Your task to perform on an android device: turn on location history Image 0: 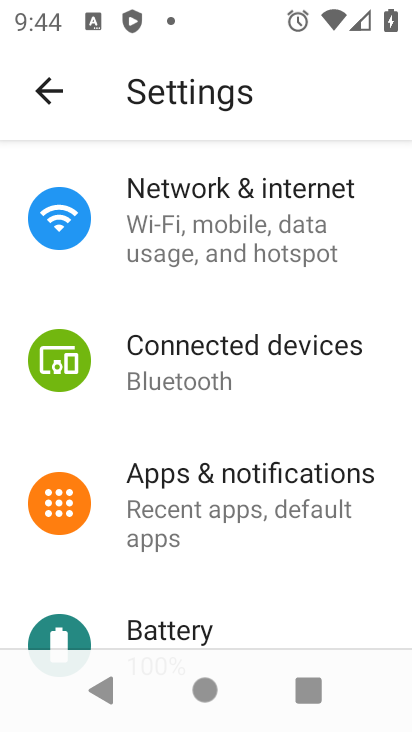
Step 0: drag from (147, 577) to (18, 25)
Your task to perform on an android device: turn on location history Image 1: 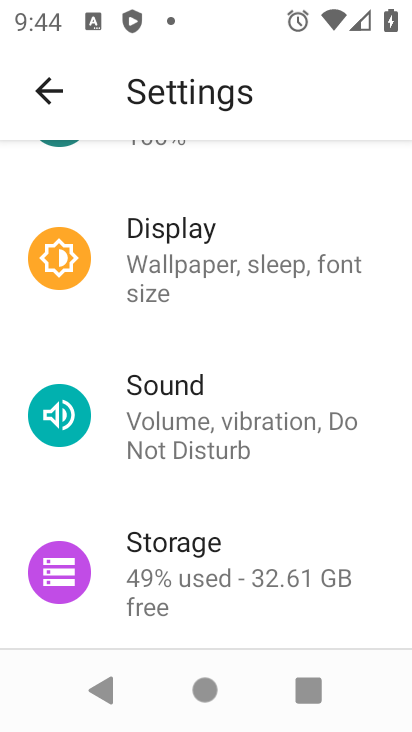
Step 1: drag from (292, 524) to (285, 169)
Your task to perform on an android device: turn on location history Image 2: 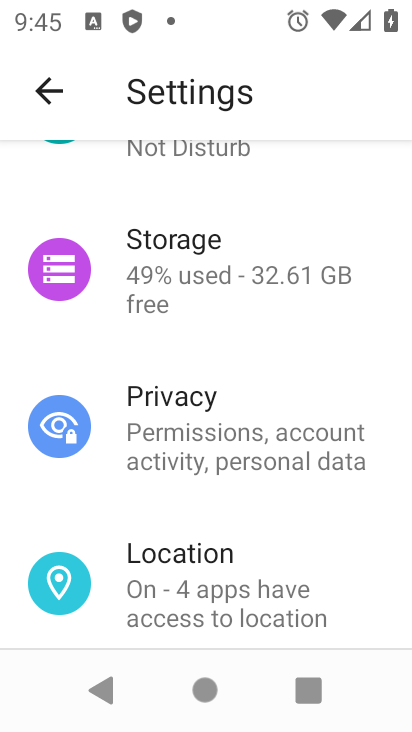
Step 2: click (239, 574)
Your task to perform on an android device: turn on location history Image 3: 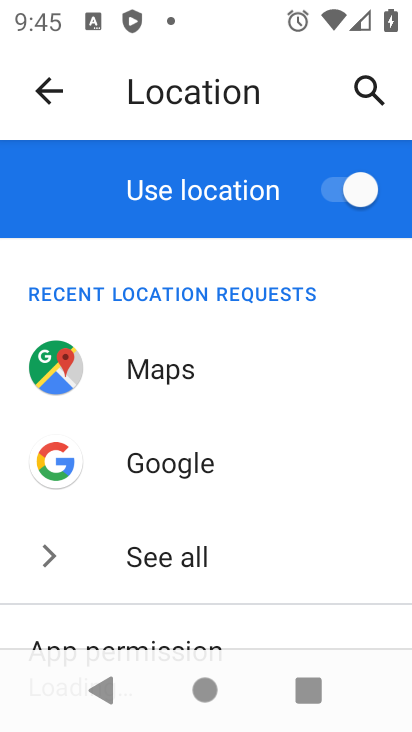
Step 3: drag from (229, 619) to (180, 284)
Your task to perform on an android device: turn on location history Image 4: 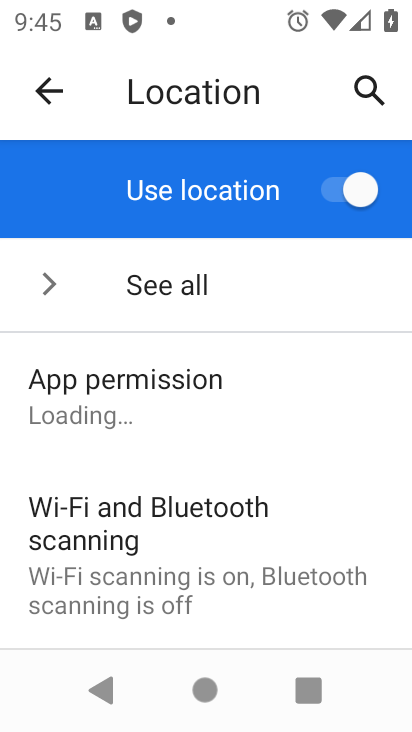
Step 4: drag from (244, 608) to (204, 229)
Your task to perform on an android device: turn on location history Image 5: 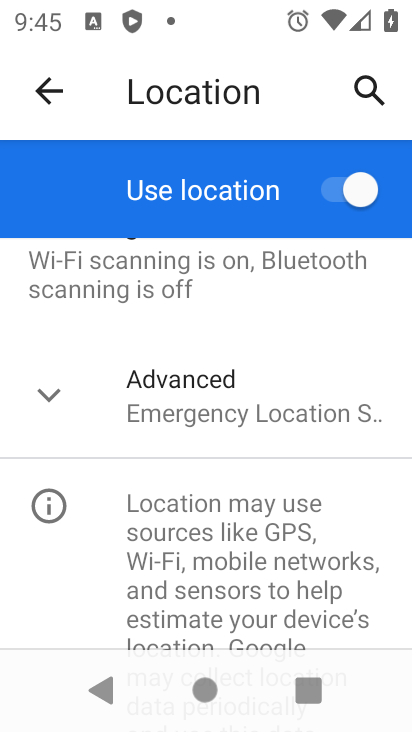
Step 5: drag from (191, 520) to (129, 224)
Your task to perform on an android device: turn on location history Image 6: 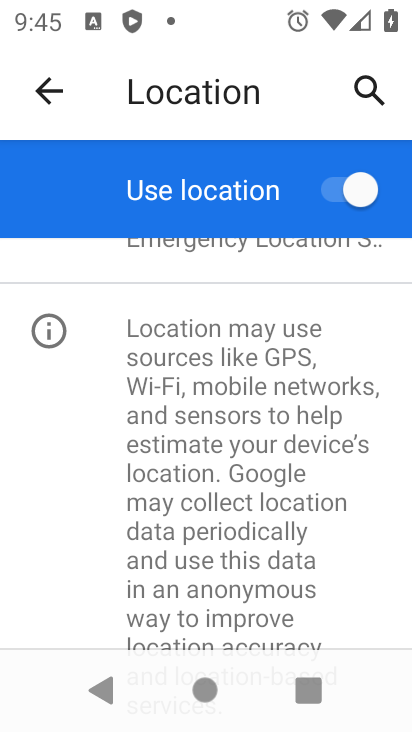
Step 6: drag from (221, 605) to (155, 224)
Your task to perform on an android device: turn on location history Image 7: 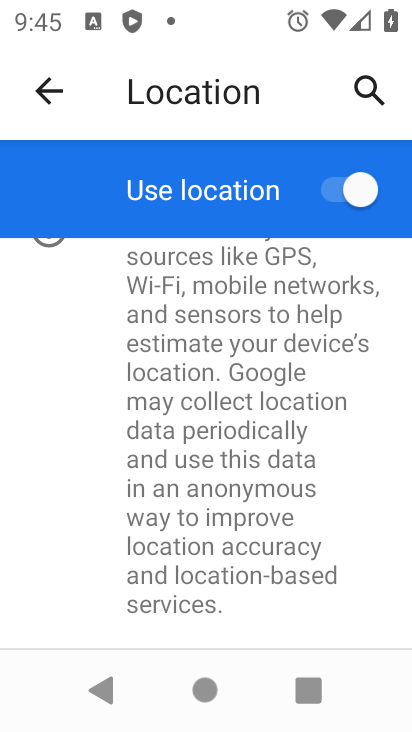
Step 7: drag from (237, 550) to (203, 262)
Your task to perform on an android device: turn on location history Image 8: 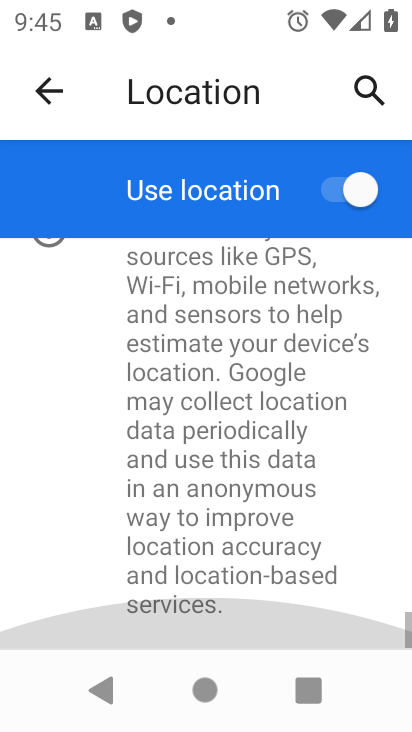
Step 8: drag from (203, 262) to (274, 618)
Your task to perform on an android device: turn on location history Image 9: 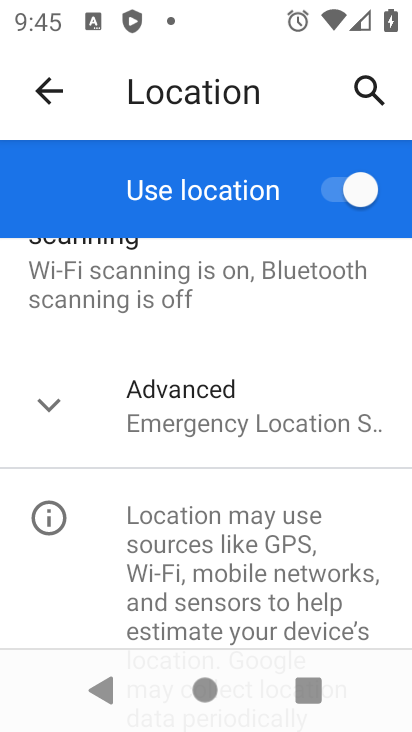
Step 9: click (178, 412)
Your task to perform on an android device: turn on location history Image 10: 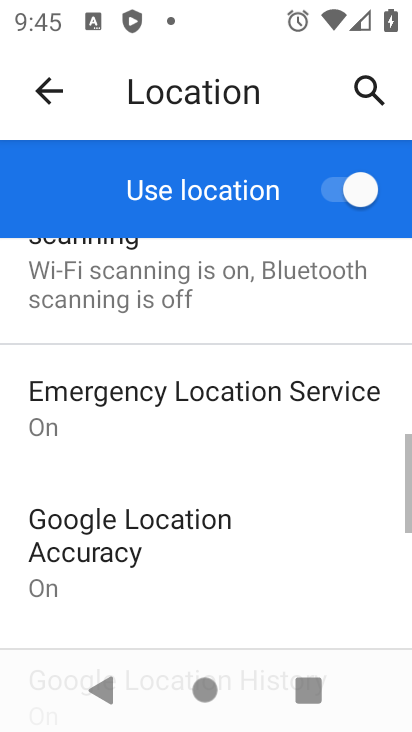
Step 10: drag from (236, 576) to (162, 299)
Your task to perform on an android device: turn on location history Image 11: 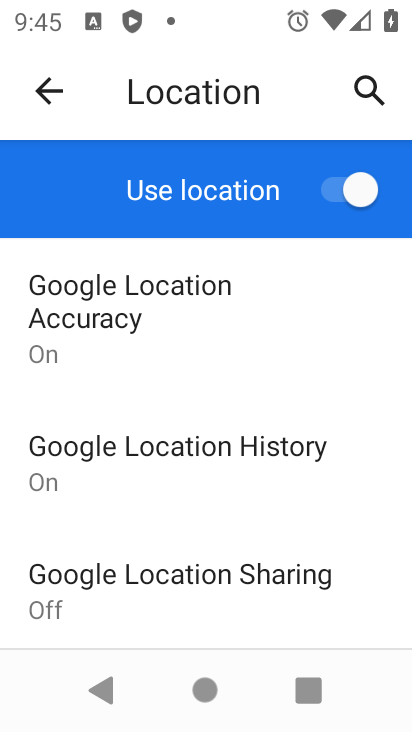
Step 11: click (191, 431)
Your task to perform on an android device: turn on location history Image 12: 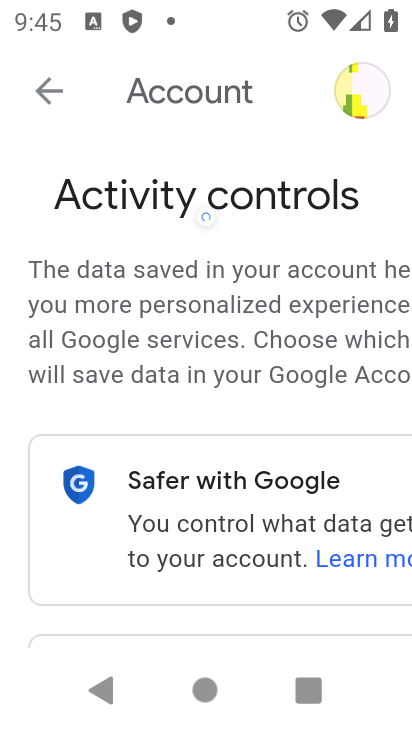
Step 12: drag from (250, 566) to (233, 226)
Your task to perform on an android device: turn on location history Image 13: 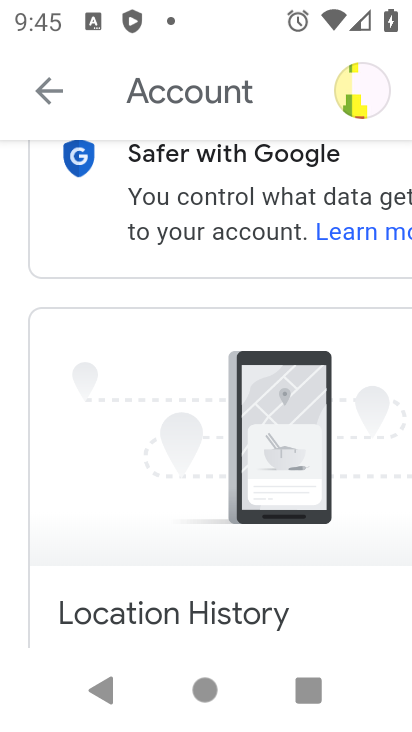
Step 13: drag from (258, 564) to (263, 118)
Your task to perform on an android device: turn on location history Image 14: 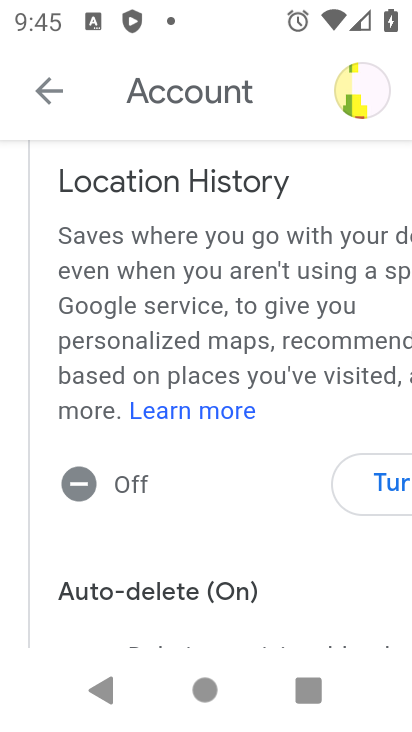
Step 14: drag from (278, 518) to (251, 383)
Your task to perform on an android device: turn on location history Image 15: 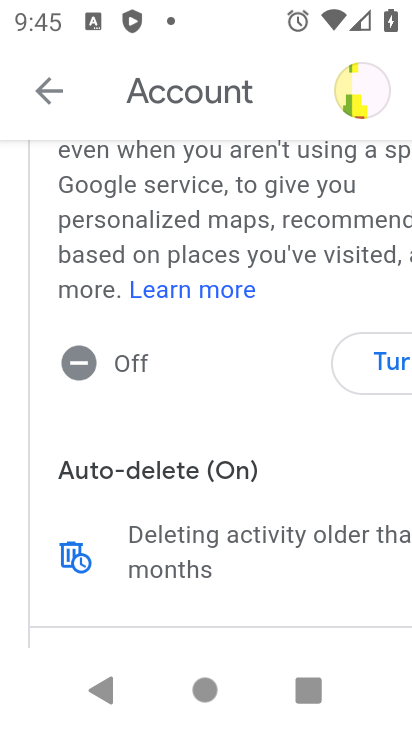
Step 15: drag from (224, 463) to (166, 512)
Your task to perform on an android device: turn on location history Image 16: 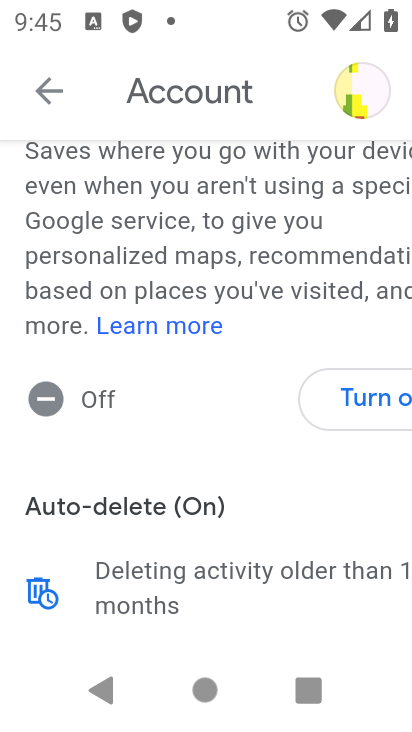
Step 16: click (348, 417)
Your task to perform on an android device: turn on location history Image 17: 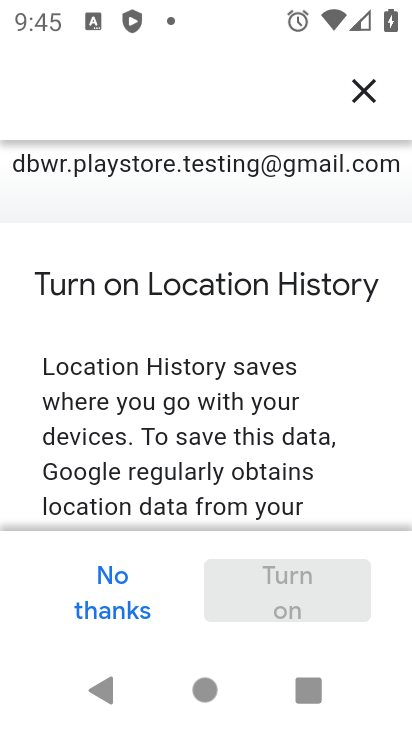
Step 17: drag from (269, 483) to (249, 78)
Your task to perform on an android device: turn on location history Image 18: 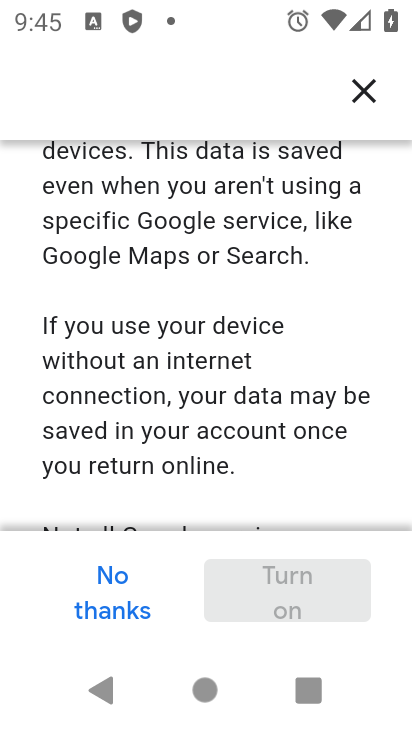
Step 18: drag from (228, 477) to (248, 98)
Your task to perform on an android device: turn on location history Image 19: 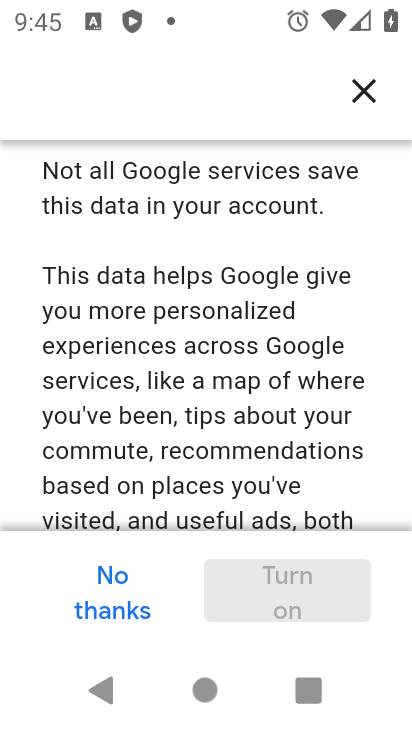
Step 19: drag from (260, 414) to (311, 150)
Your task to perform on an android device: turn on location history Image 20: 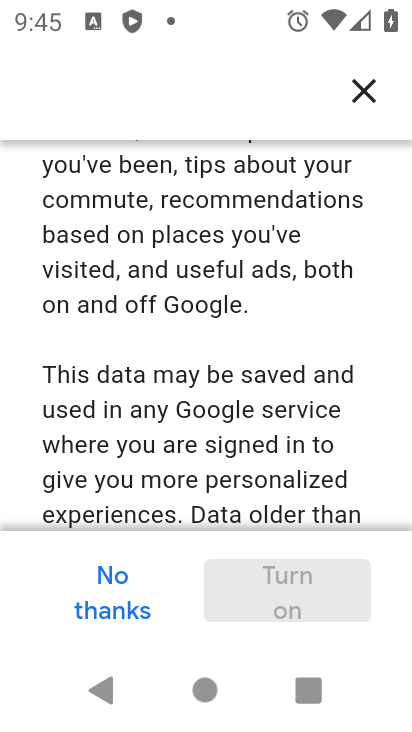
Step 20: drag from (253, 494) to (255, 119)
Your task to perform on an android device: turn on location history Image 21: 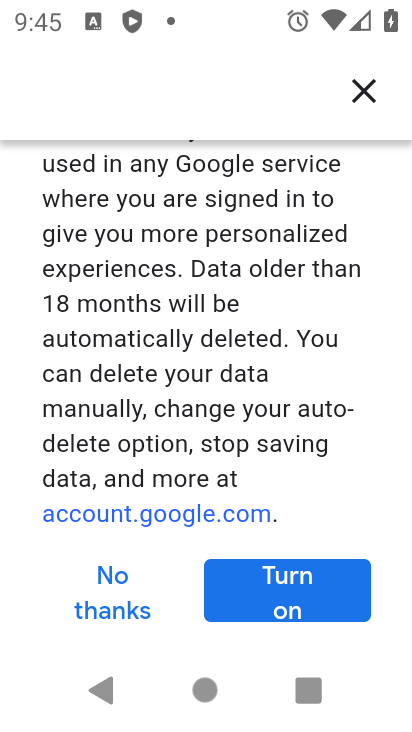
Step 21: click (278, 587)
Your task to perform on an android device: turn on location history Image 22: 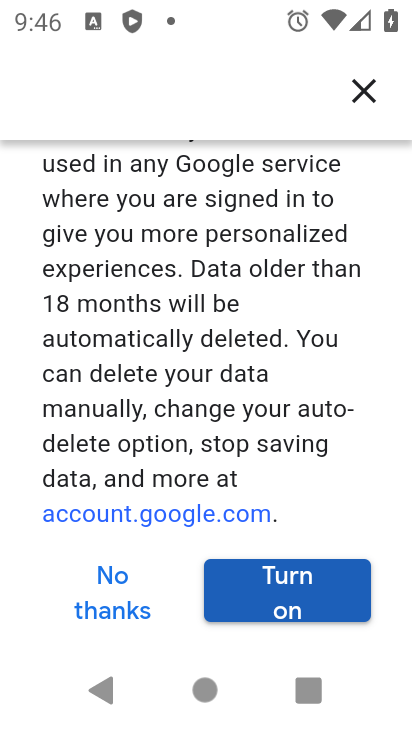
Step 22: click (281, 590)
Your task to perform on an android device: turn on location history Image 23: 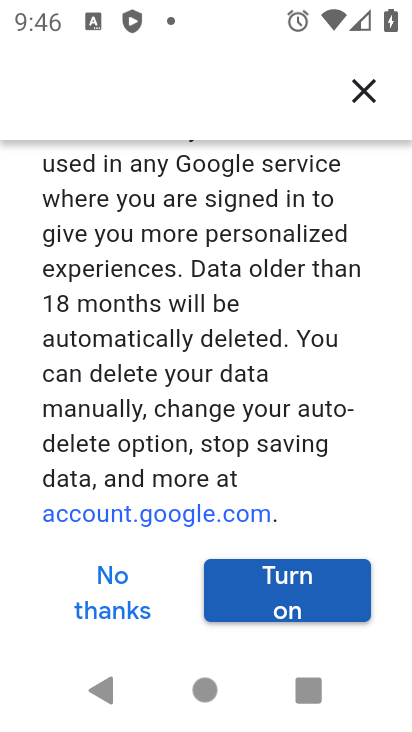
Step 23: click (281, 590)
Your task to perform on an android device: turn on location history Image 24: 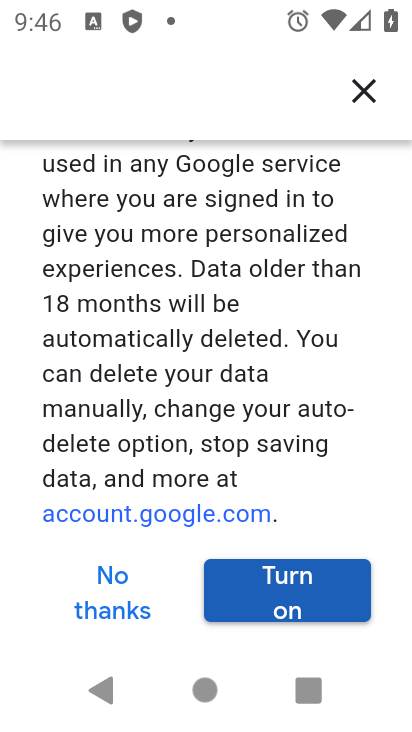
Step 24: click (281, 590)
Your task to perform on an android device: turn on location history Image 25: 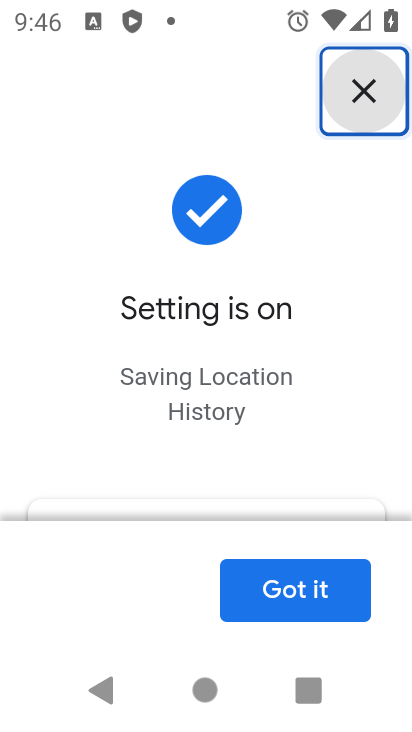
Step 25: click (278, 585)
Your task to perform on an android device: turn on location history Image 26: 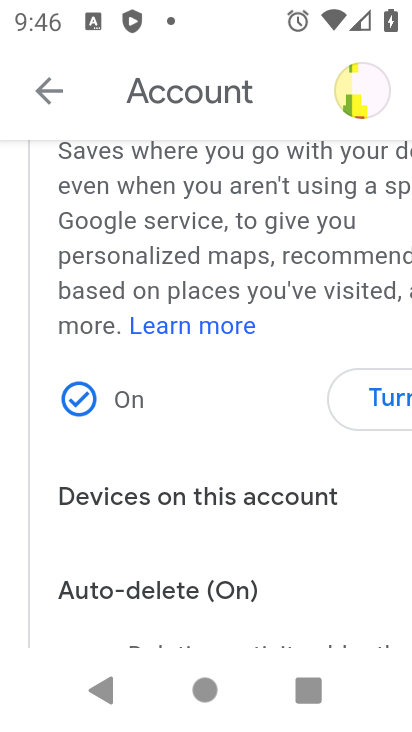
Step 26: task complete